Your task to perform on an android device: See recent photos Image 0: 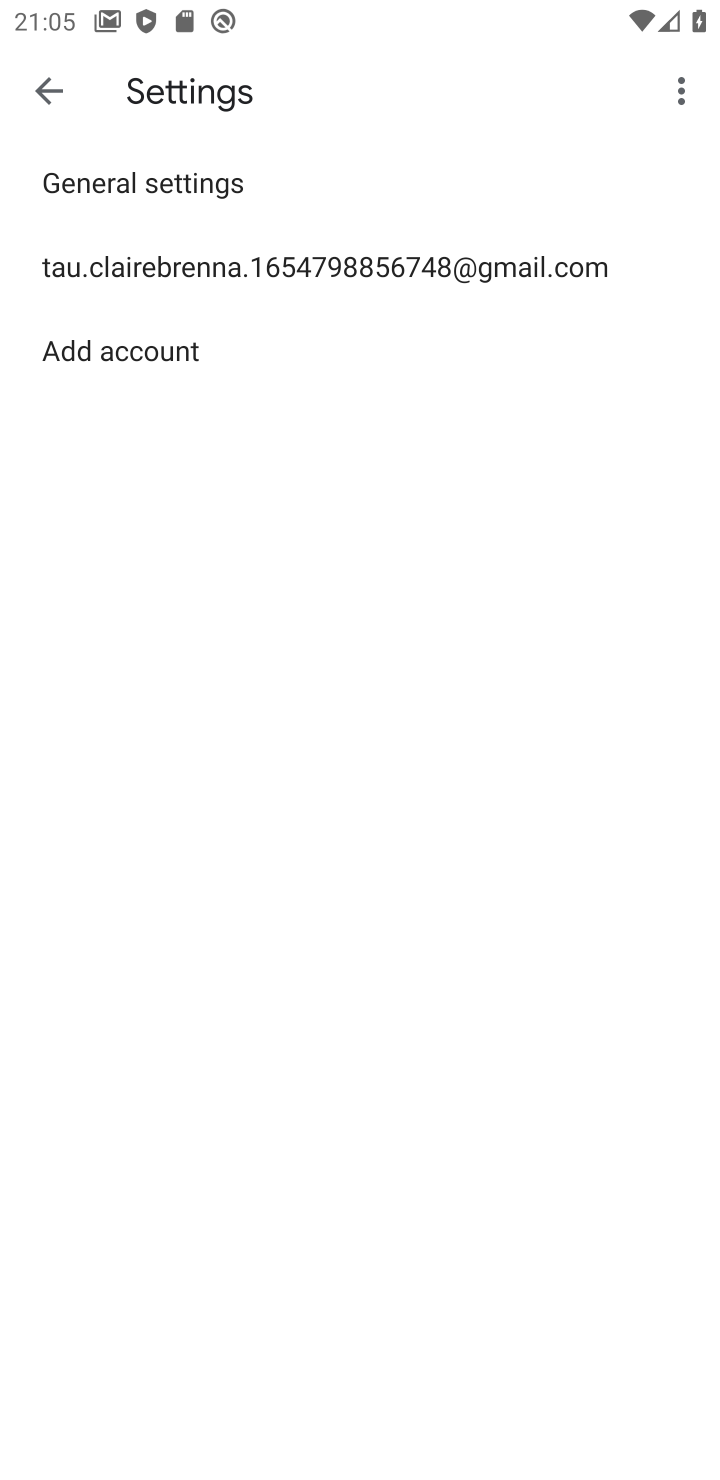
Step 0: press home button
Your task to perform on an android device: See recent photos Image 1: 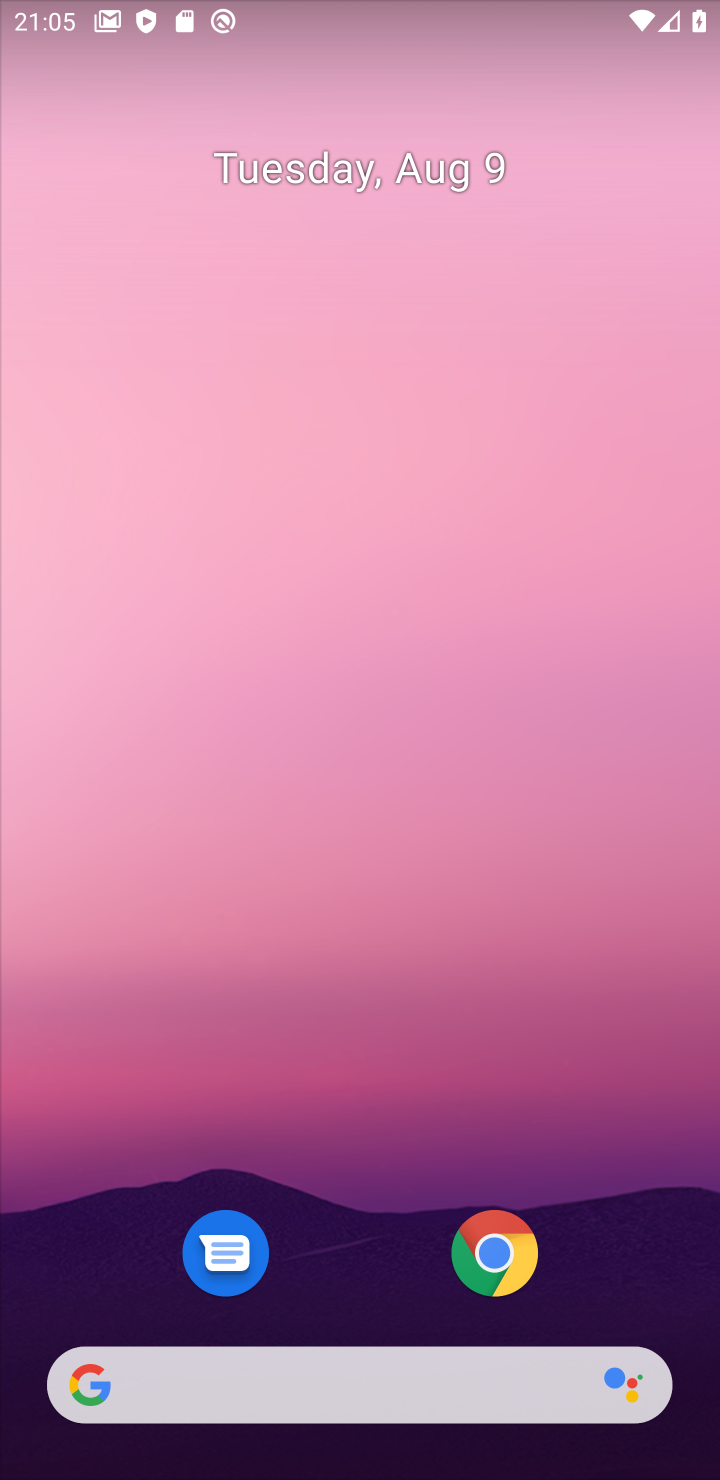
Step 1: drag from (381, 1218) to (309, 85)
Your task to perform on an android device: See recent photos Image 2: 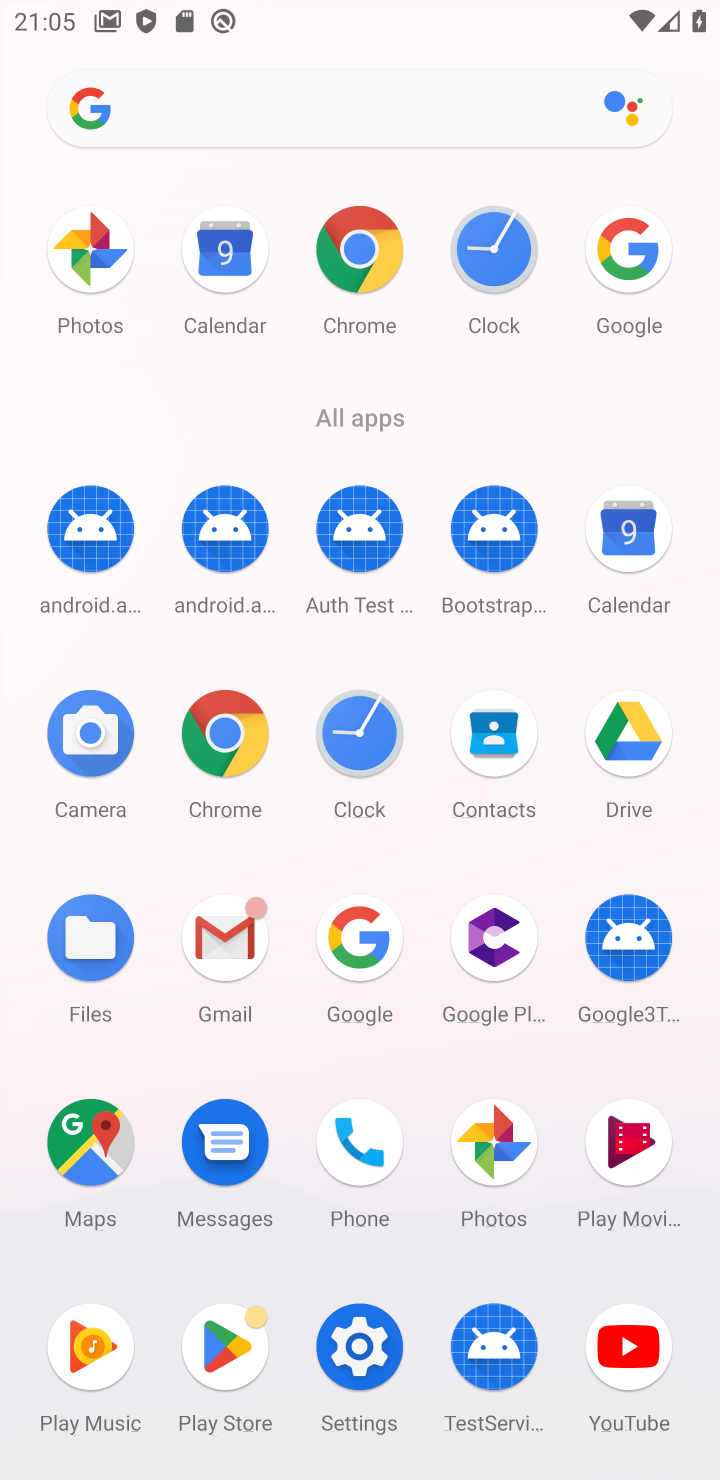
Step 2: click (486, 1117)
Your task to perform on an android device: See recent photos Image 3: 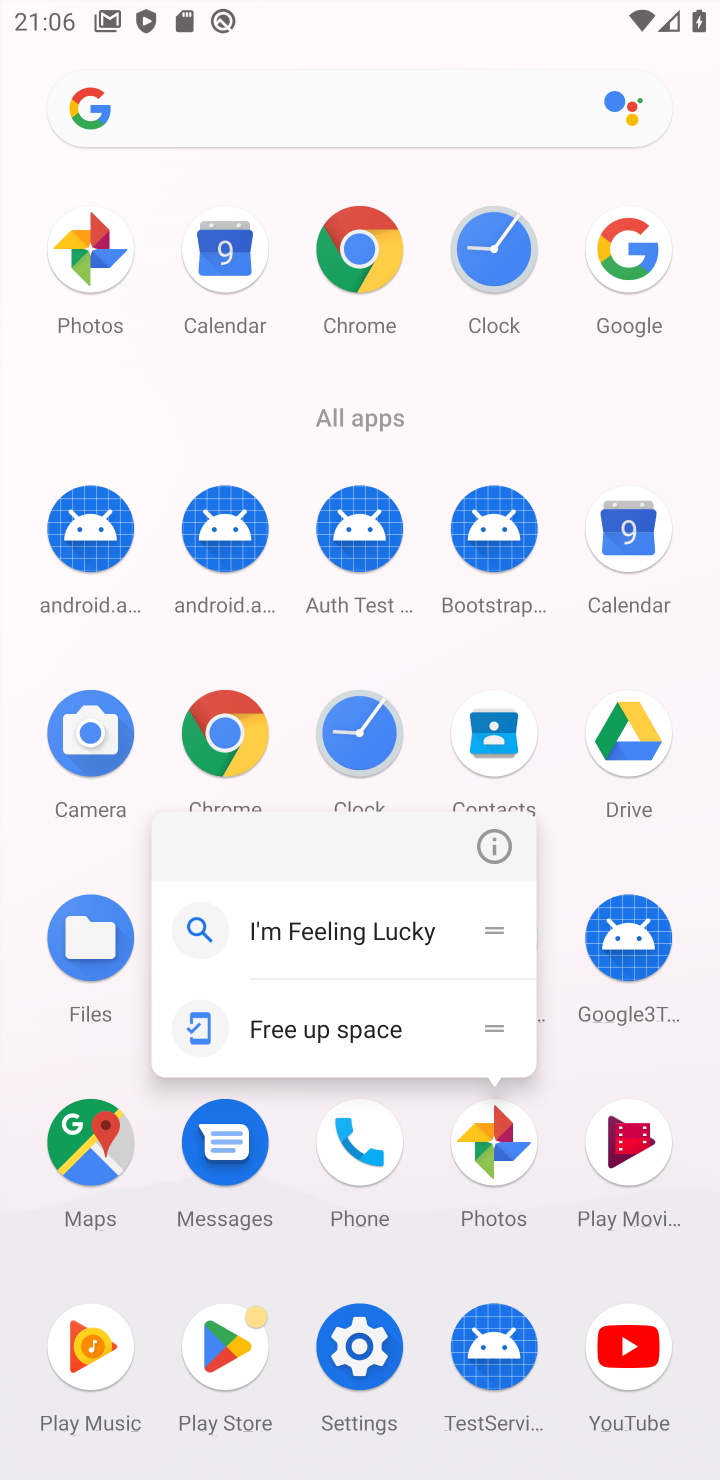
Step 3: click (491, 1134)
Your task to perform on an android device: See recent photos Image 4: 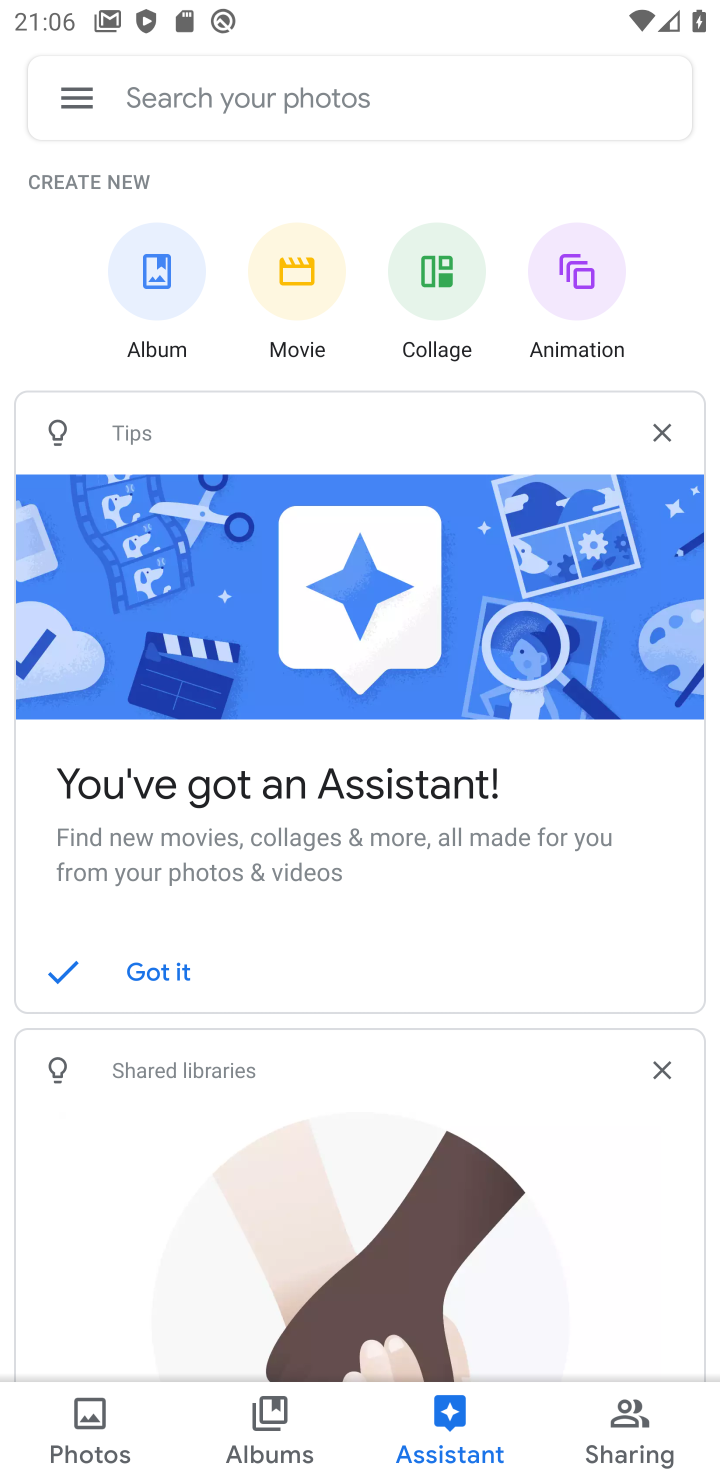
Step 4: click (53, 1434)
Your task to perform on an android device: See recent photos Image 5: 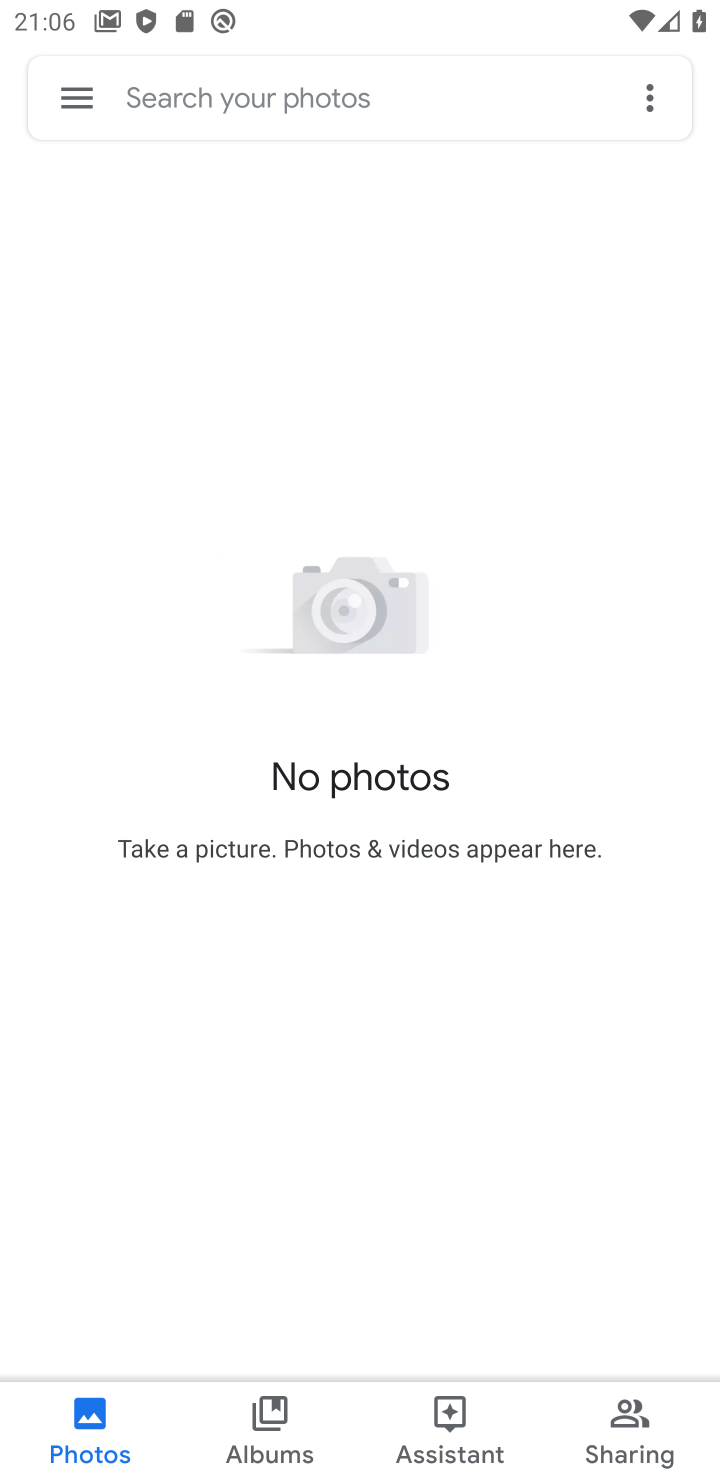
Step 5: task complete